Your task to perform on an android device: Open my contact list Image 0: 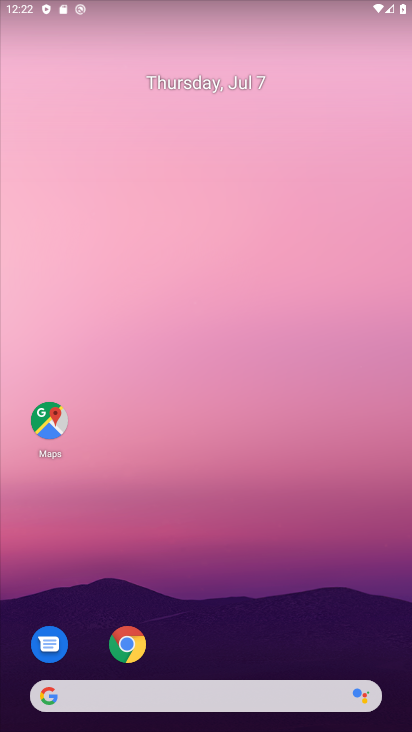
Step 0: drag from (217, 689) to (173, 186)
Your task to perform on an android device: Open my contact list Image 1: 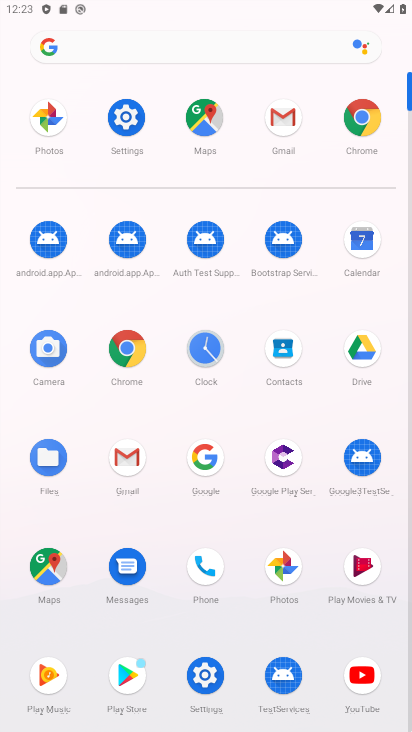
Step 1: click (283, 343)
Your task to perform on an android device: Open my contact list Image 2: 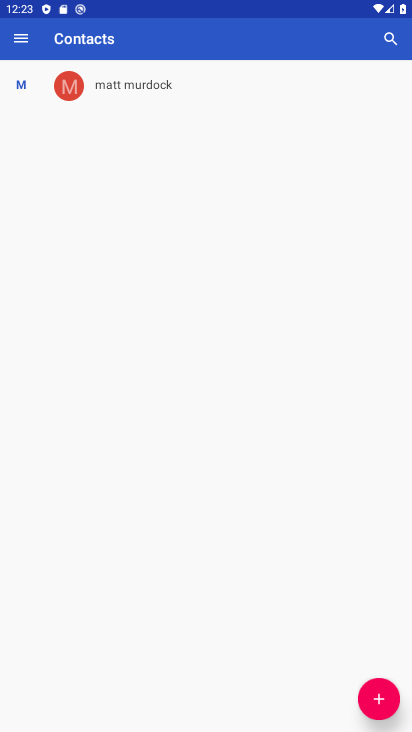
Step 2: task complete